Your task to perform on an android device: Open Chrome and go to the settings page Image 0: 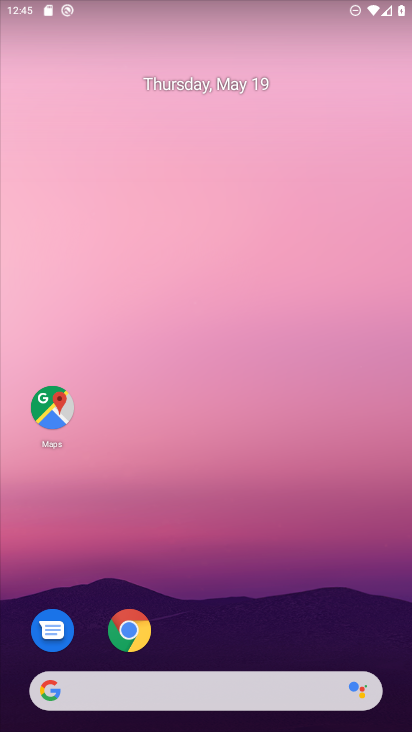
Step 0: drag from (202, 594) to (225, 142)
Your task to perform on an android device: Open Chrome and go to the settings page Image 1: 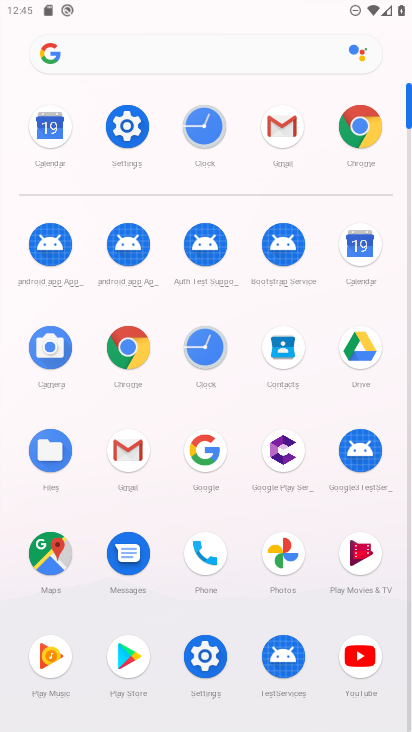
Step 1: click (195, 653)
Your task to perform on an android device: Open Chrome and go to the settings page Image 2: 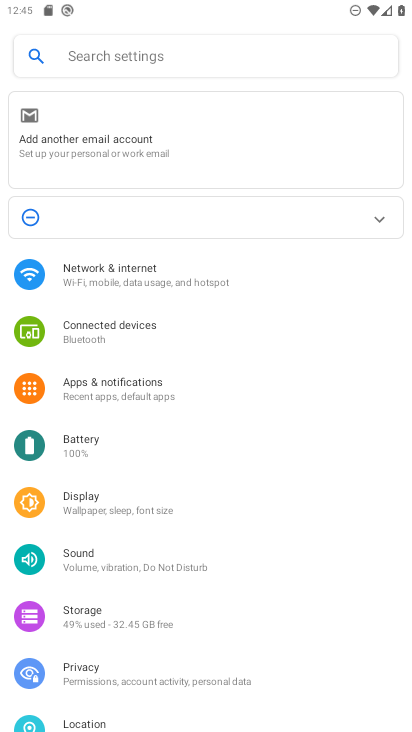
Step 2: drag from (181, 636) to (196, 262)
Your task to perform on an android device: Open Chrome and go to the settings page Image 3: 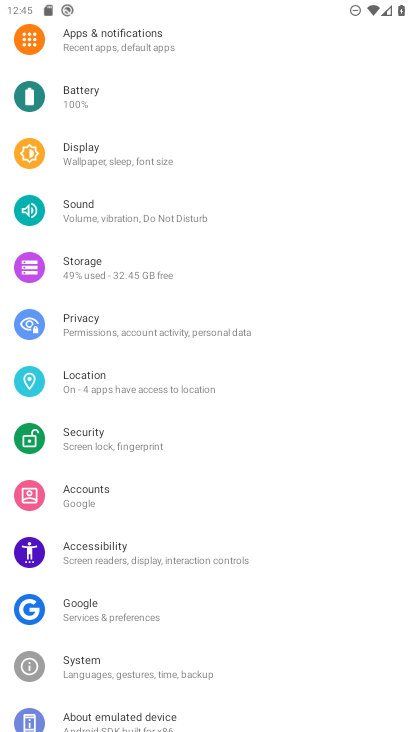
Step 3: press home button
Your task to perform on an android device: Open Chrome and go to the settings page Image 4: 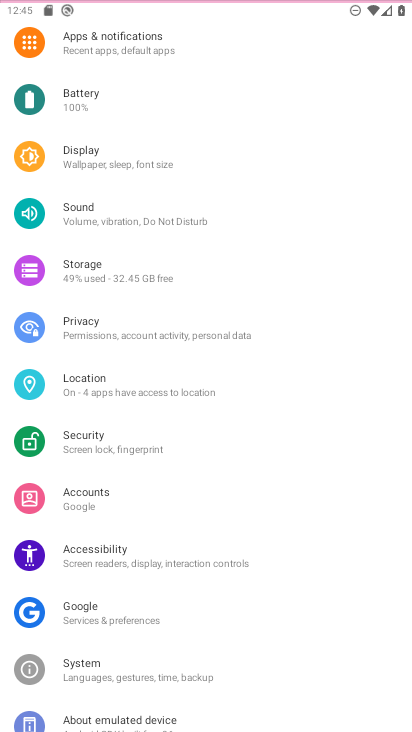
Step 4: drag from (91, 686) to (155, 227)
Your task to perform on an android device: Open Chrome and go to the settings page Image 5: 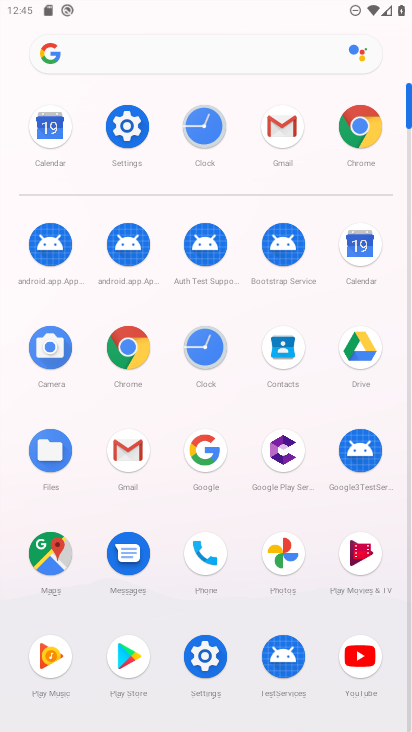
Step 5: click (351, 123)
Your task to perform on an android device: Open Chrome and go to the settings page Image 6: 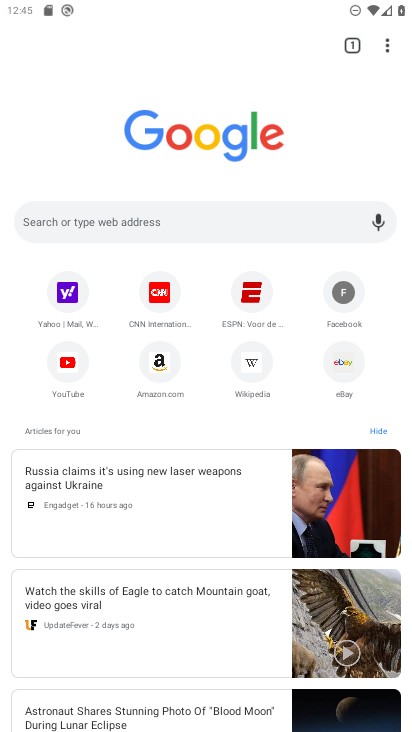
Step 6: click (384, 51)
Your task to perform on an android device: Open Chrome and go to the settings page Image 7: 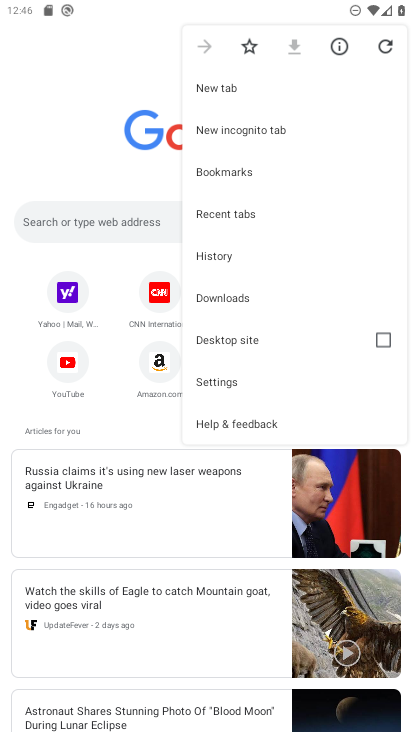
Step 7: click (215, 364)
Your task to perform on an android device: Open Chrome and go to the settings page Image 8: 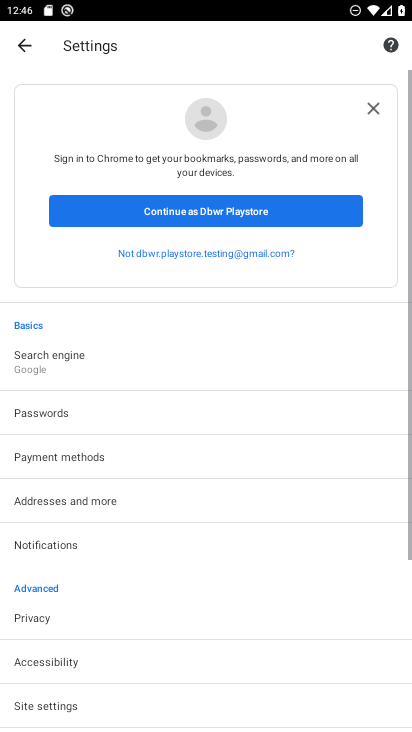
Step 8: task complete